Your task to perform on an android device: Open Google Chrome Image 0: 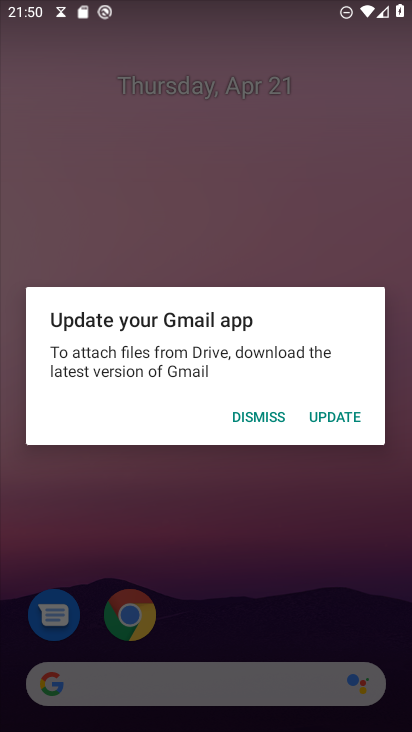
Step 0: press home button
Your task to perform on an android device: Open Google Chrome Image 1: 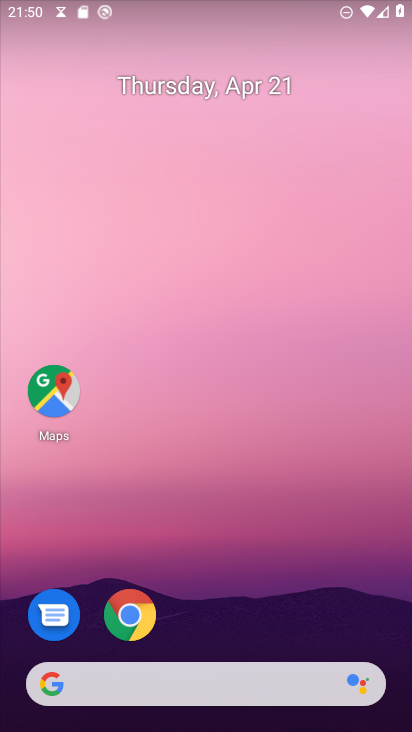
Step 1: click (133, 607)
Your task to perform on an android device: Open Google Chrome Image 2: 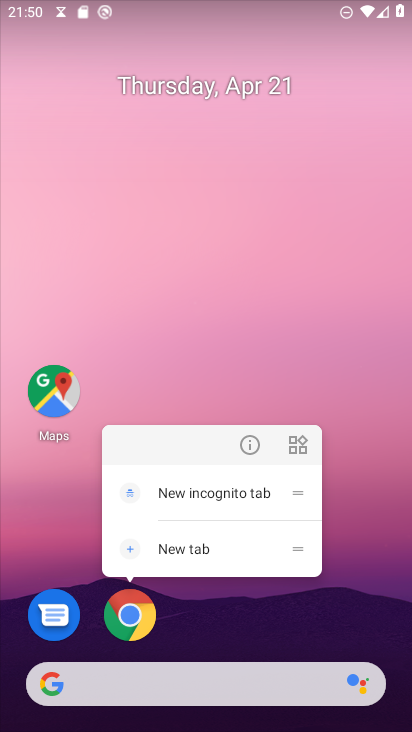
Step 2: click (243, 452)
Your task to perform on an android device: Open Google Chrome Image 3: 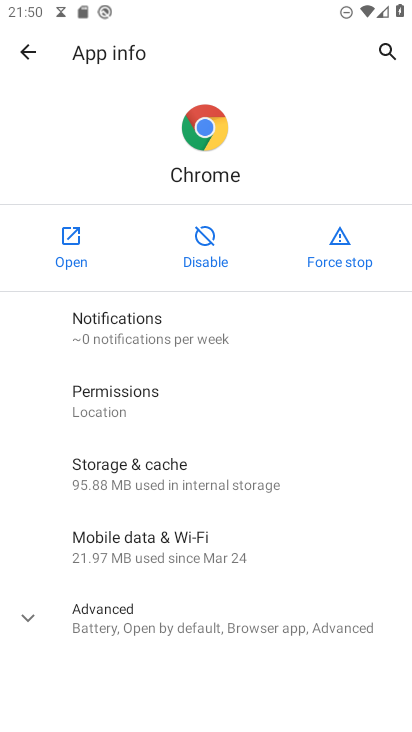
Step 3: click (81, 240)
Your task to perform on an android device: Open Google Chrome Image 4: 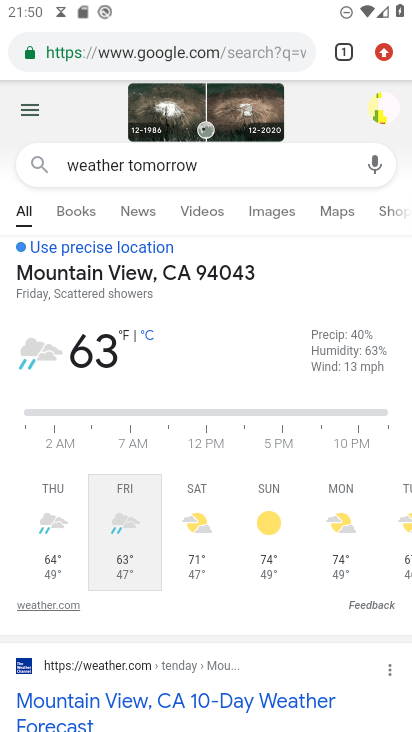
Step 4: click (180, 58)
Your task to perform on an android device: Open Google Chrome Image 5: 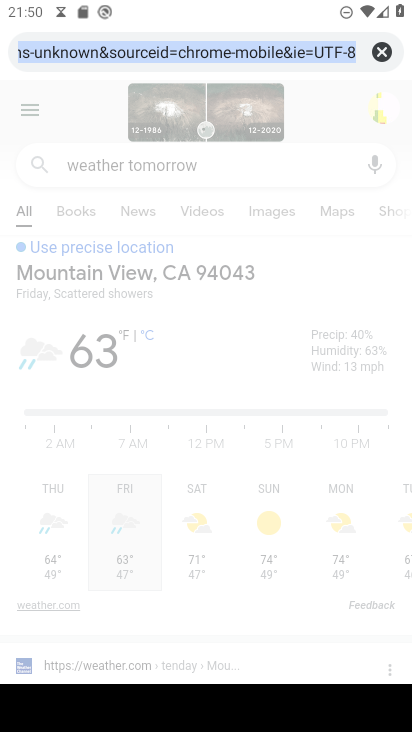
Step 5: click (384, 51)
Your task to perform on an android device: Open Google Chrome Image 6: 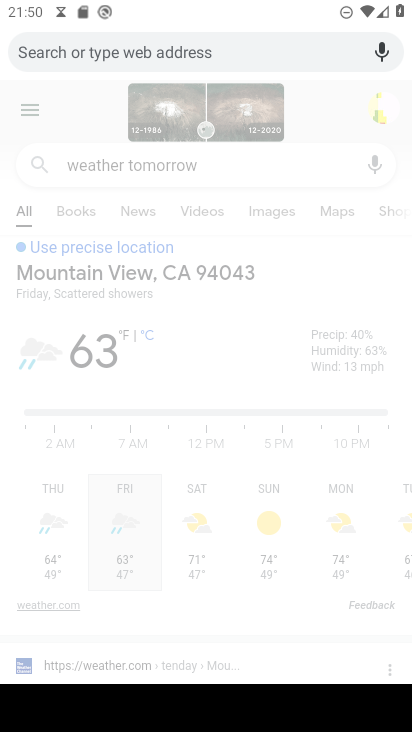
Step 6: click (94, 62)
Your task to perform on an android device: Open Google Chrome Image 7: 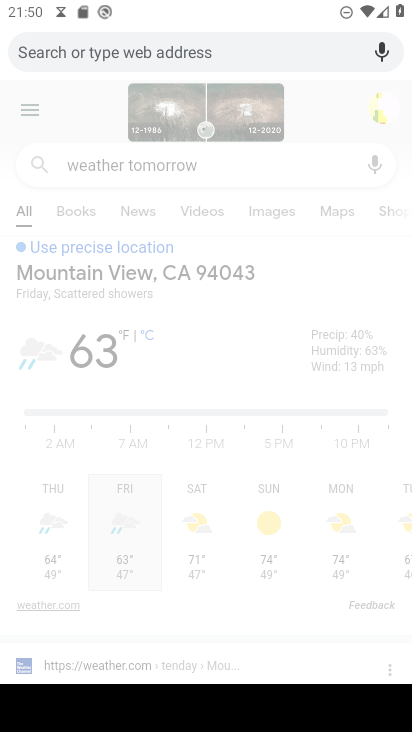
Step 7: click (284, 292)
Your task to perform on an android device: Open Google Chrome Image 8: 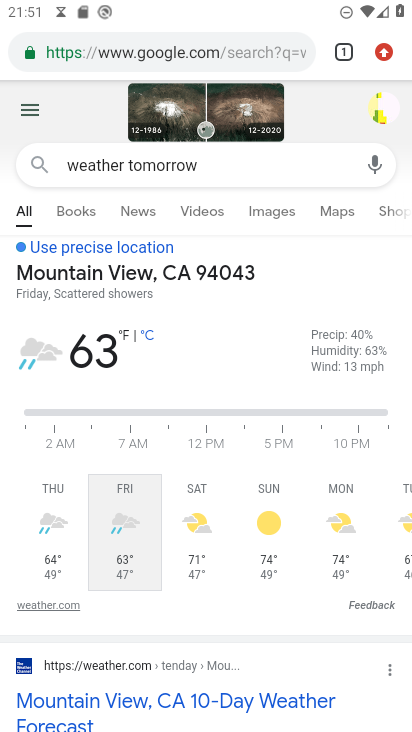
Step 8: task complete